Your task to perform on an android device: open app "Reddit" (install if not already installed) Image 0: 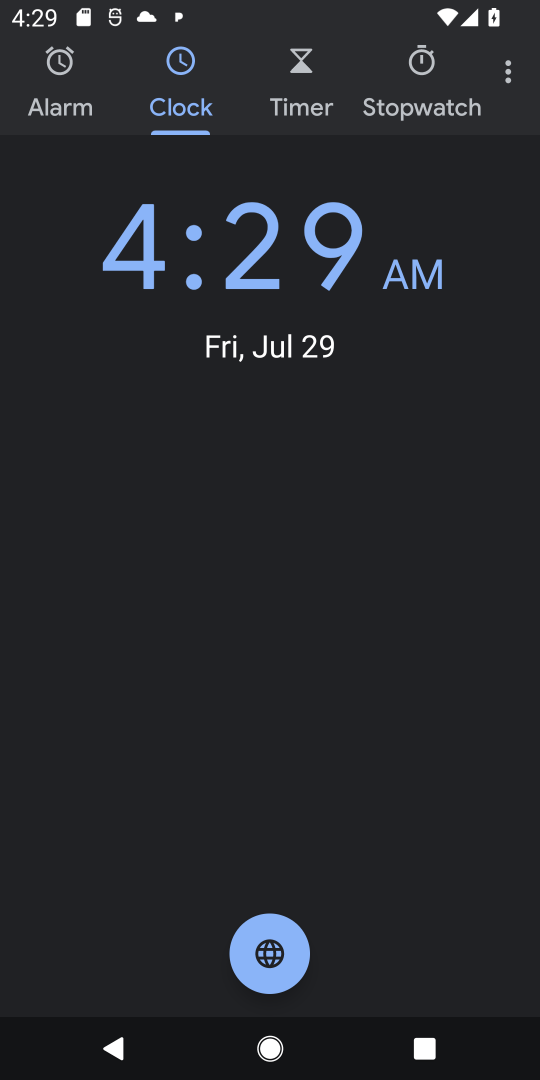
Step 0: press back button
Your task to perform on an android device: open app "Reddit" (install if not already installed) Image 1: 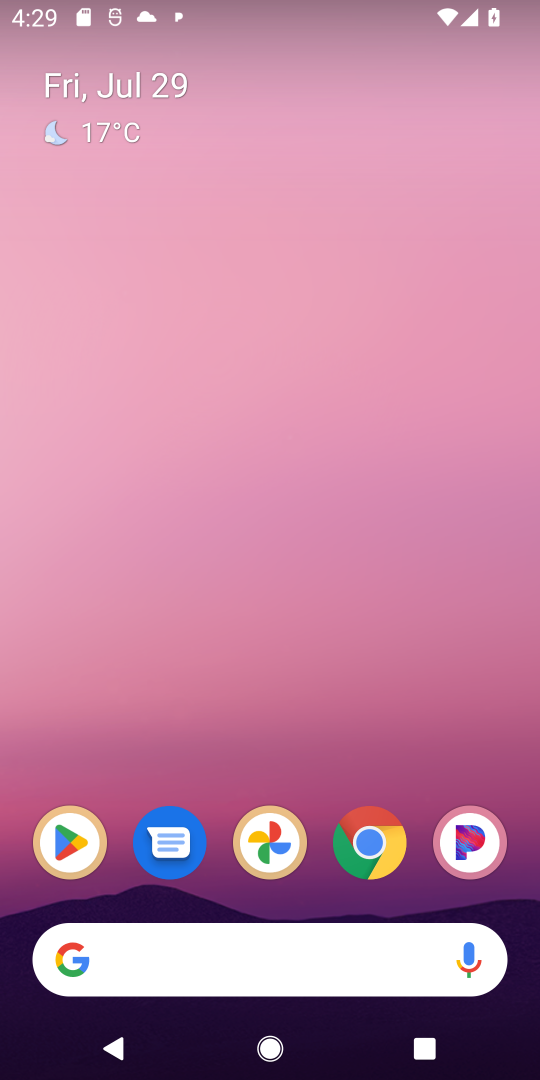
Step 1: click (81, 829)
Your task to perform on an android device: open app "Reddit" (install if not already installed) Image 2: 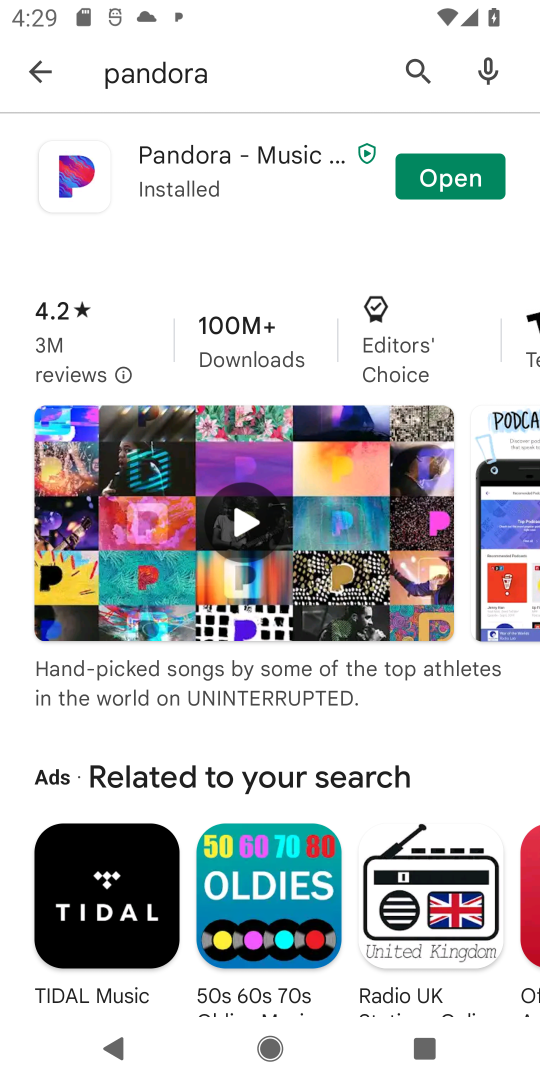
Step 2: click (416, 75)
Your task to perform on an android device: open app "Reddit" (install if not already installed) Image 3: 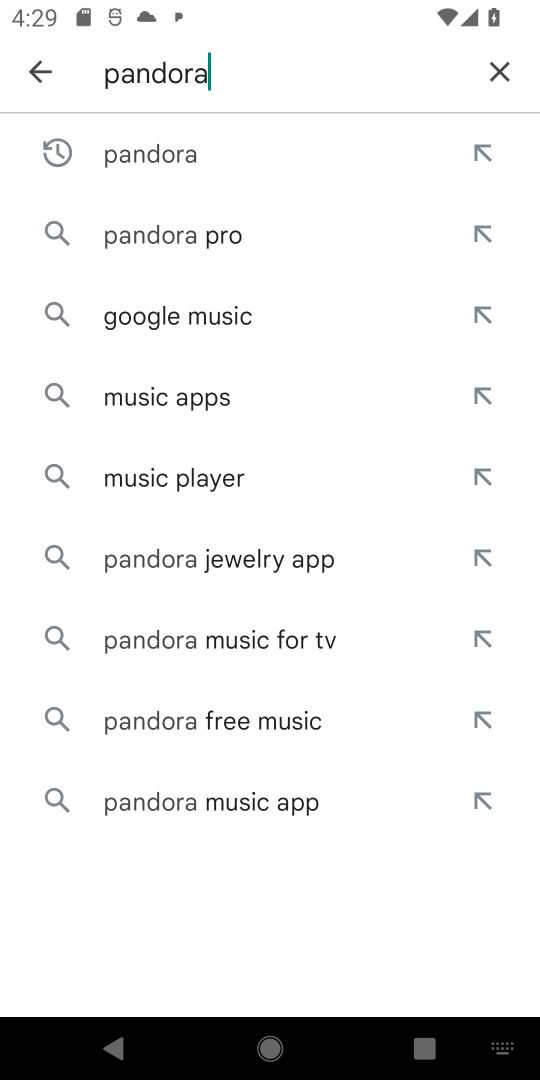
Step 3: click (500, 69)
Your task to perform on an android device: open app "Reddit" (install if not already installed) Image 4: 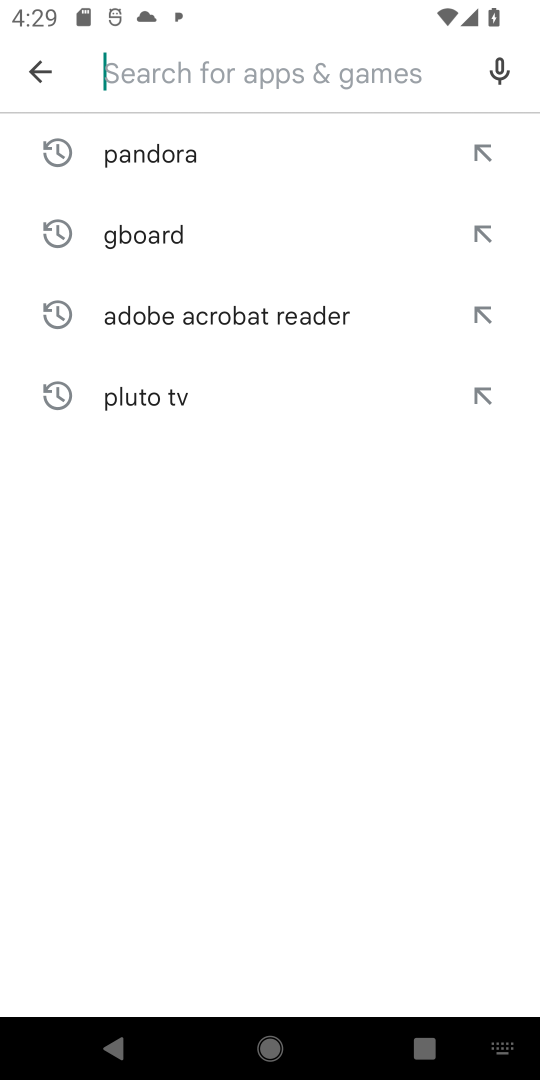
Step 4: type "reddit"
Your task to perform on an android device: open app "Reddit" (install if not already installed) Image 5: 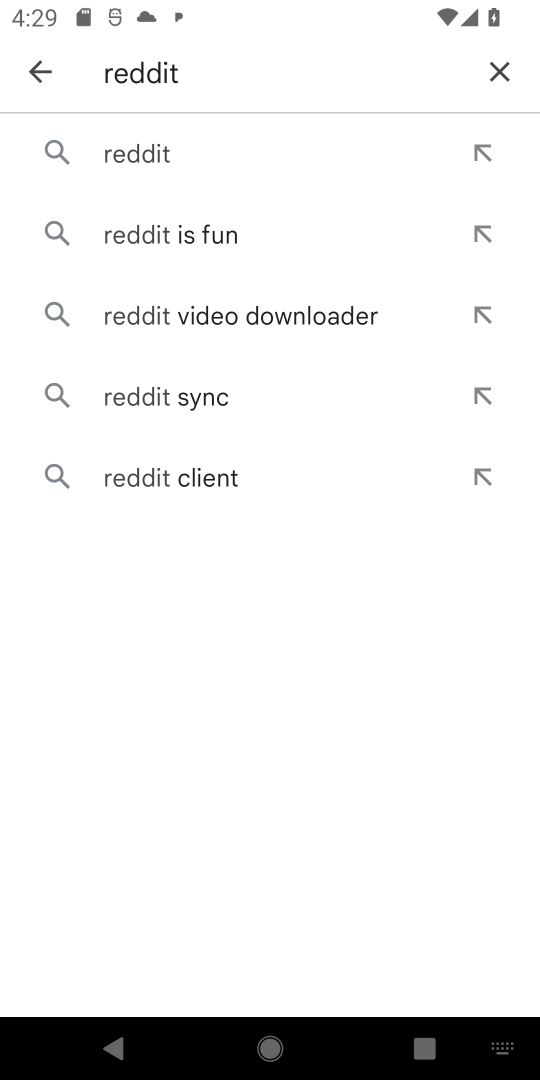
Step 5: click (188, 141)
Your task to perform on an android device: open app "Reddit" (install if not already installed) Image 6: 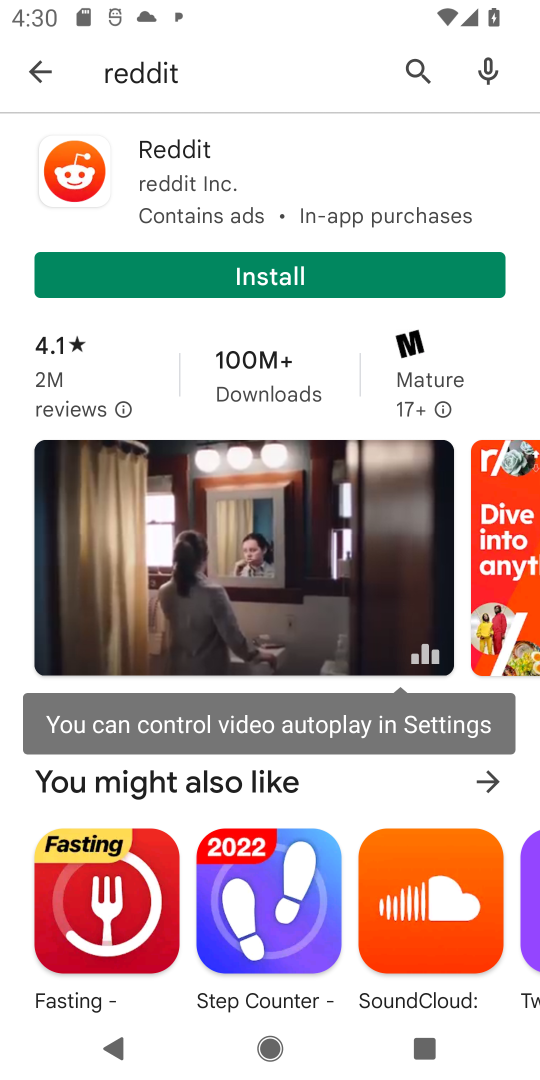
Step 6: click (336, 254)
Your task to perform on an android device: open app "Reddit" (install if not already installed) Image 7: 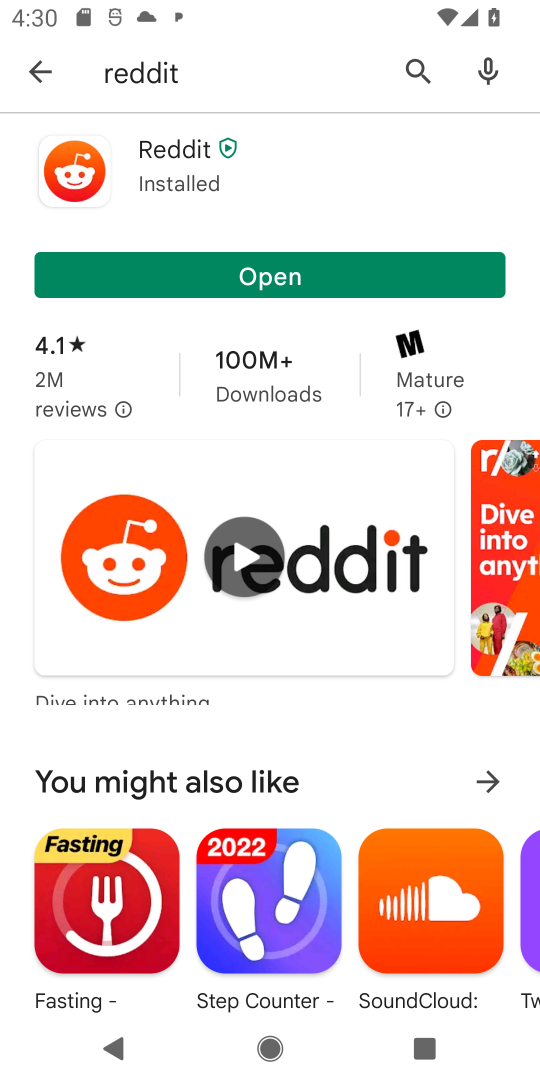
Step 7: click (263, 279)
Your task to perform on an android device: open app "Reddit" (install if not already installed) Image 8: 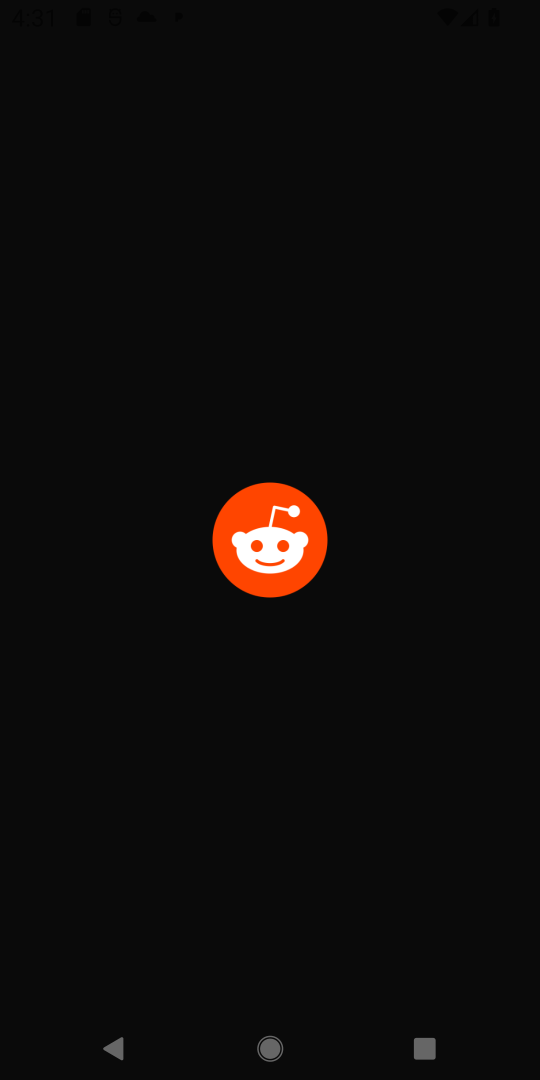
Step 8: task complete